Your task to perform on an android device: Open Chrome and go to the settings page Image 0: 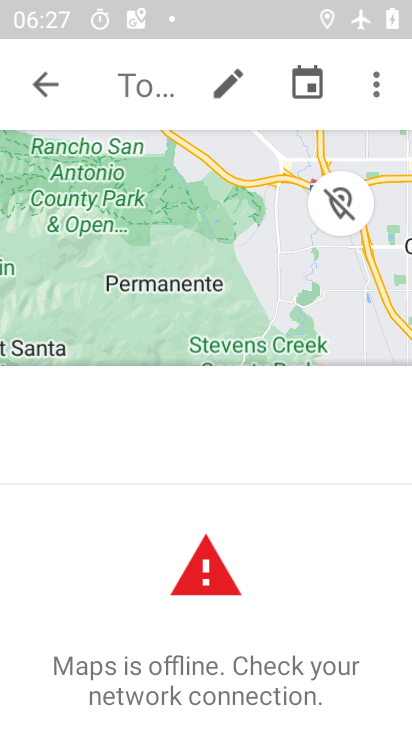
Step 0: click (228, 188)
Your task to perform on an android device: Open Chrome and go to the settings page Image 1: 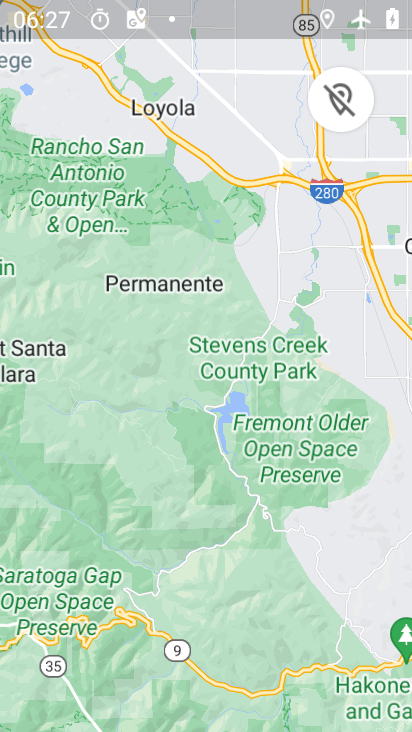
Step 1: press home button
Your task to perform on an android device: Open Chrome and go to the settings page Image 2: 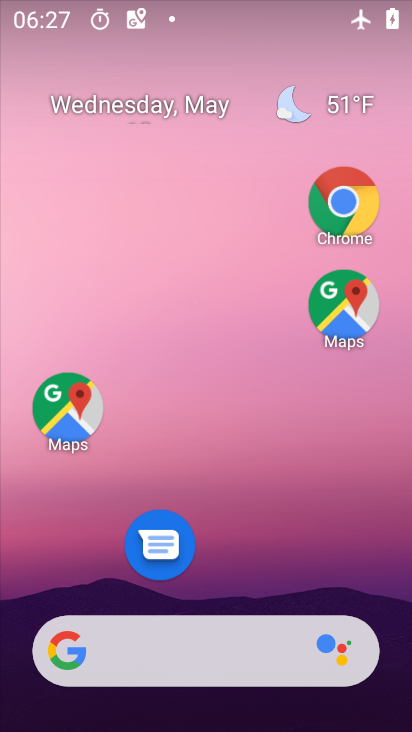
Step 2: click (331, 200)
Your task to perform on an android device: Open Chrome and go to the settings page Image 3: 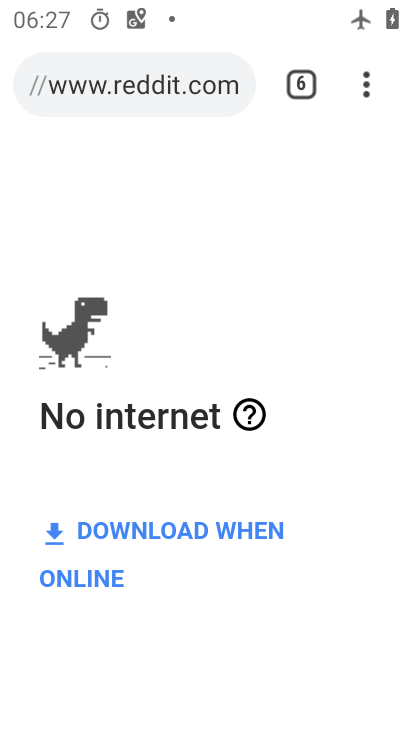
Step 3: click (364, 91)
Your task to perform on an android device: Open Chrome and go to the settings page Image 4: 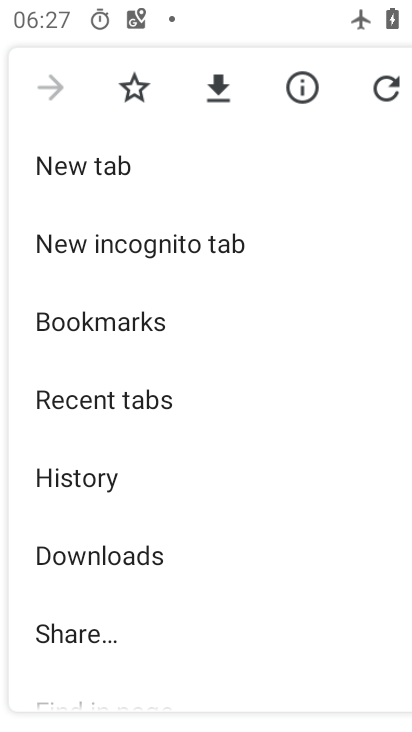
Step 4: drag from (142, 588) to (128, 101)
Your task to perform on an android device: Open Chrome and go to the settings page Image 5: 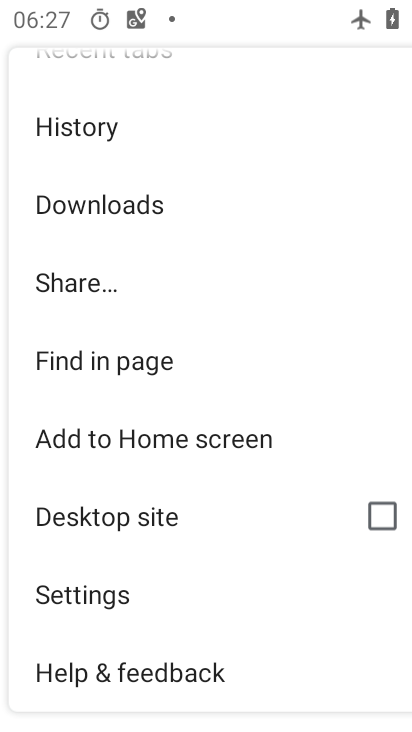
Step 5: click (74, 595)
Your task to perform on an android device: Open Chrome and go to the settings page Image 6: 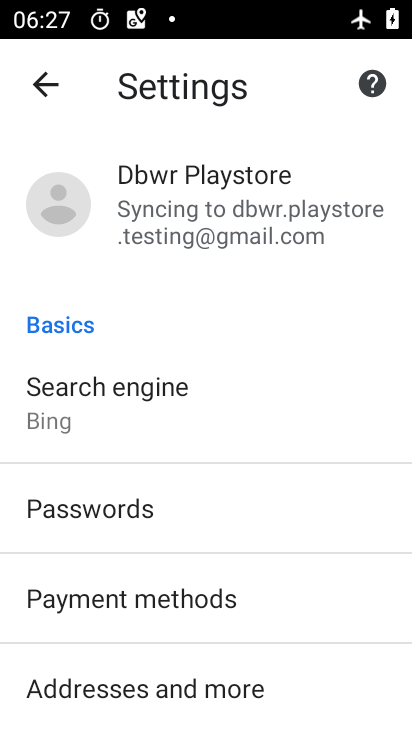
Step 6: task complete